Your task to perform on an android device: change the clock style Image 0: 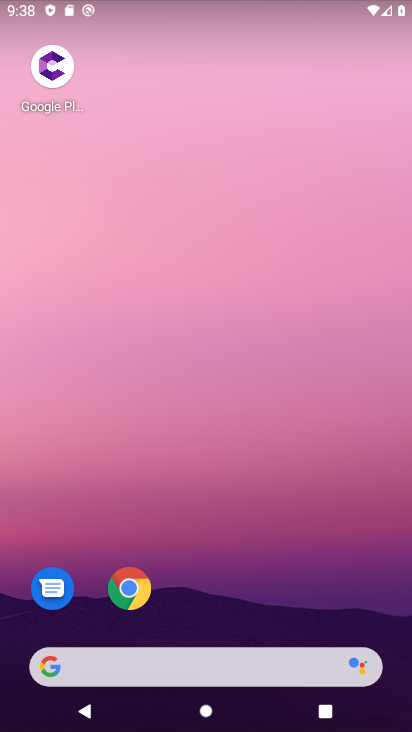
Step 0: drag from (233, 726) to (221, 213)
Your task to perform on an android device: change the clock style Image 1: 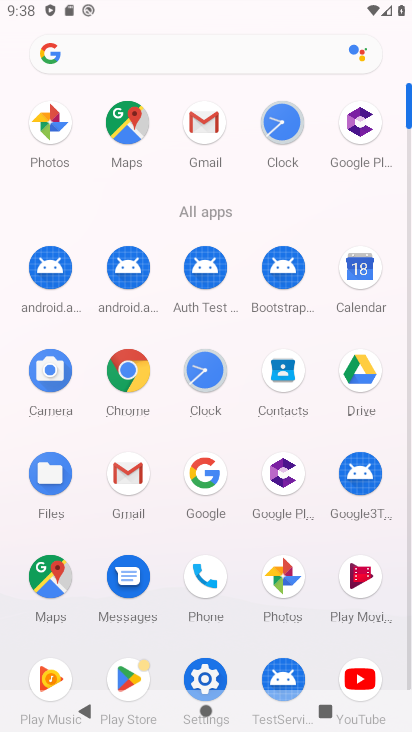
Step 1: click (209, 372)
Your task to perform on an android device: change the clock style Image 2: 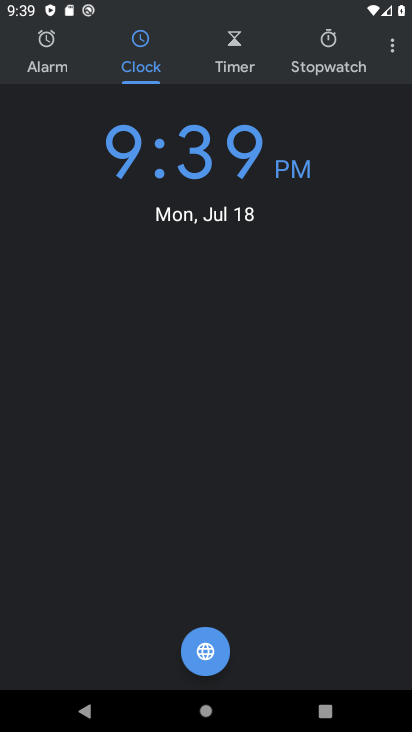
Step 2: click (394, 44)
Your task to perform on an android device: change the clock style Image 3: 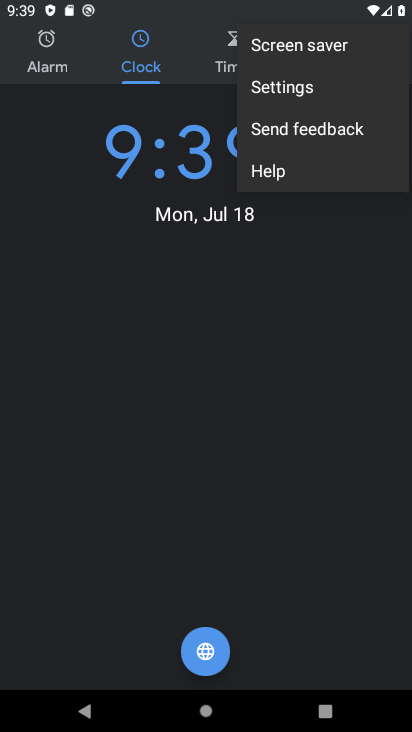
Step 3: click (294, 84)
Your task to perform on an android device: change the clock style Image 4: 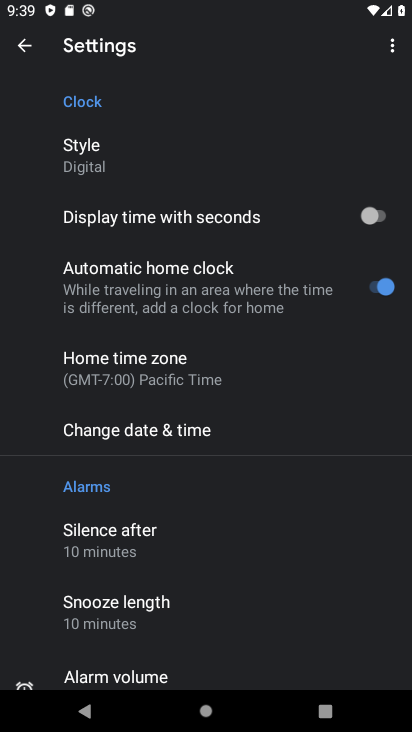
Step 4: click (87, 167)
Your task to perform on an android device: change the clock style Image 5: 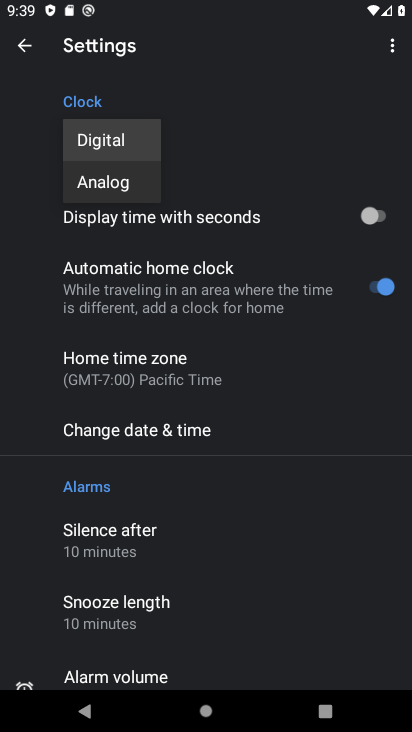
Step 5: click (102, 182)
Your task to perform on an android device: change the clock style Image 6: 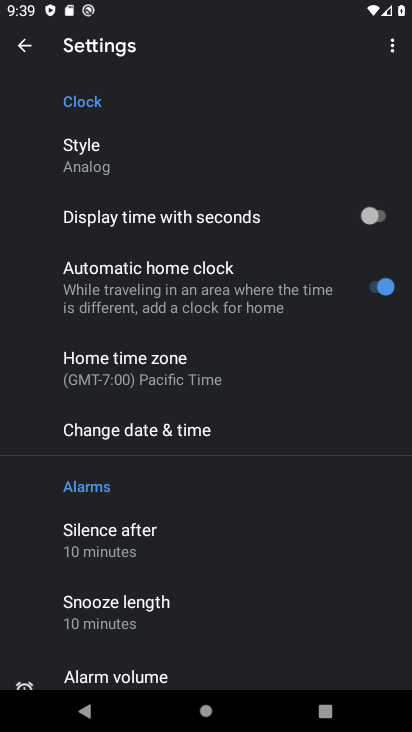
Step 6: task complete